Your task to perform on an android device: Check the news Image 0: 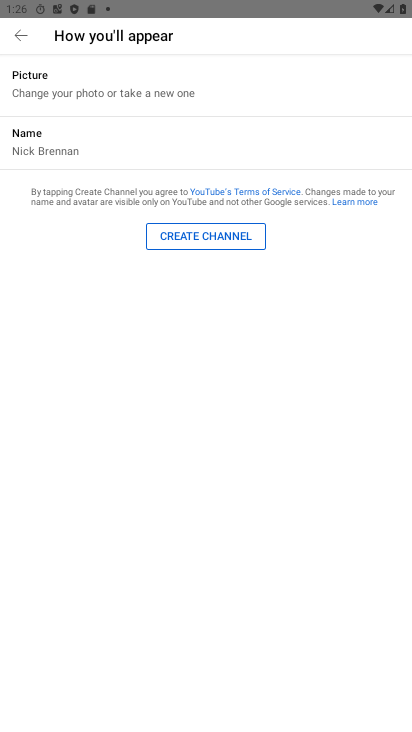
Step 0: press home button
Your task to perform on an android device: Check the news Image 1: 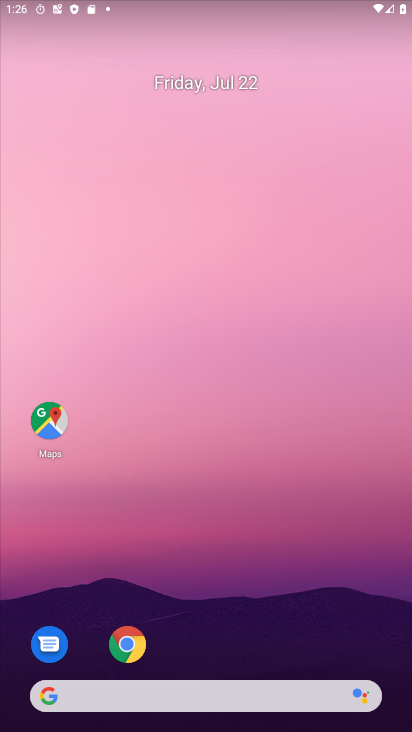
Step 1: drag from (265, 647) to (297, 132)
Your task to perform on an android device: Check the news Image 2: 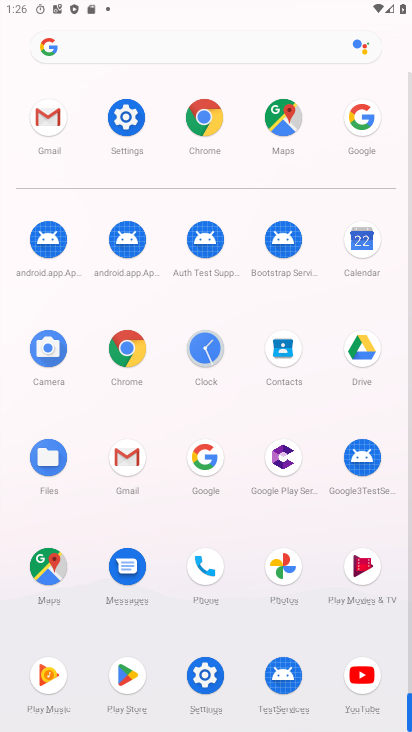
Step 2: click (208, 480)
Your task to perform on an android device: Check the news Image 3: 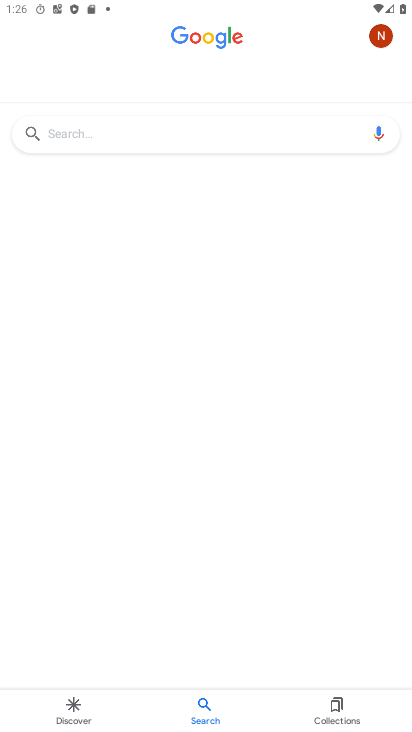
Step 3: click (160, 123)
Your task to perform on an android device: Check the news Image 4: 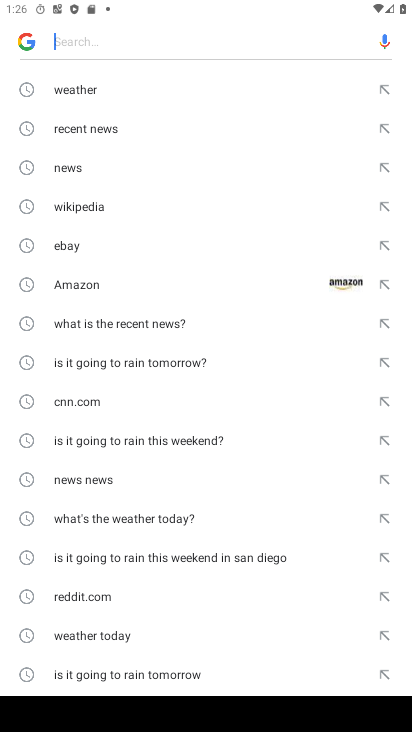
Step 4: click (91, 174)
Your task to perform on an android device: Check the news Image 5: 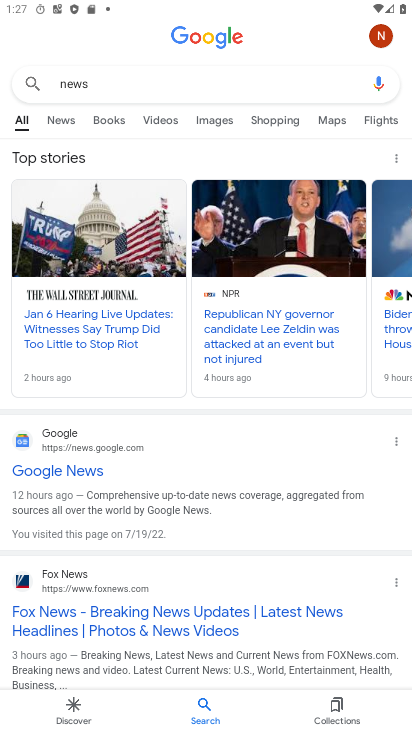
Step 5: click (53, 123)
Your task to perform on an android device: Check the news Image 6: 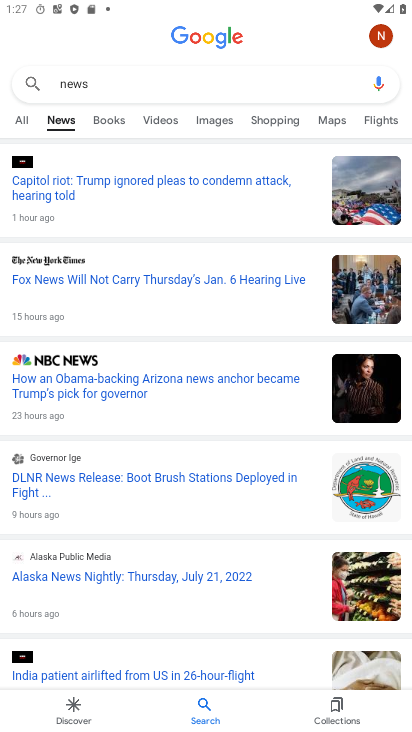
Step 6: task complete